Your task to perform on an android device: What is the recent news? Image 0: 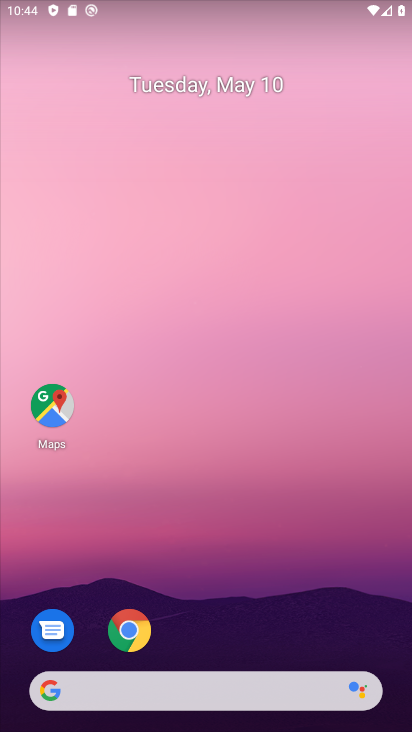
Step 0: drag from (14, 330) to (409, 297)
Your task to perform on an android device: What is the recent news? Image 1: 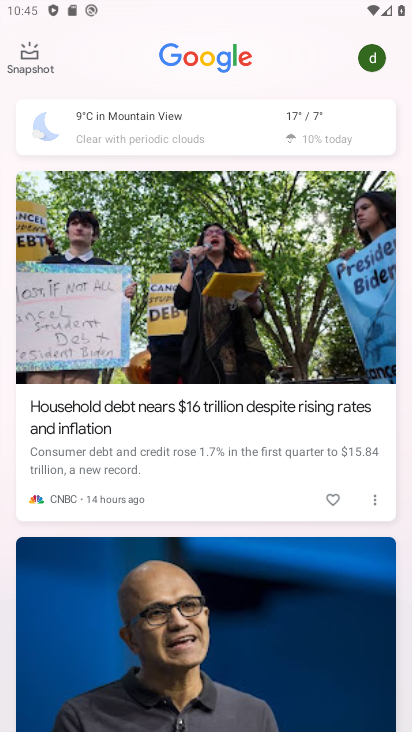
Step 1: task complete